Your task to perform on an android device: turn pop-ups off in chrome Image 0: 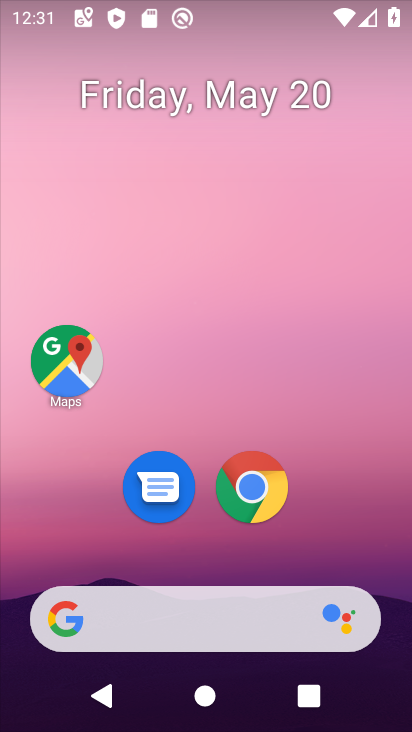
Step 0: click (250, 486)
Your task to perform on an android device: turn pop-ups off in chrome Image 1: 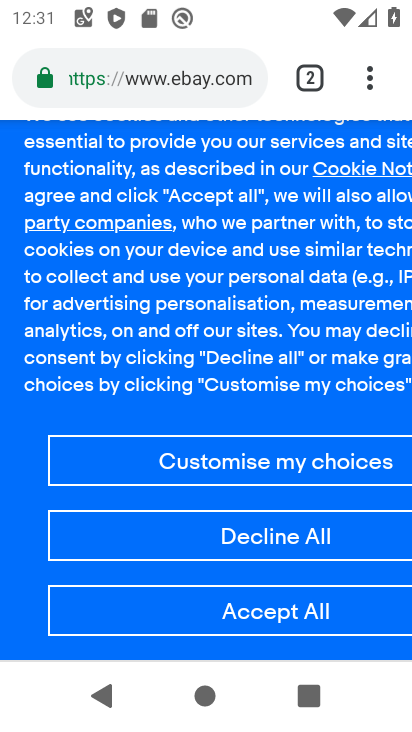
Step 1: drag from (364, 75) to (152, 557)
Your task to perform on an android device: turn pop-ups off in chrome Image 2: 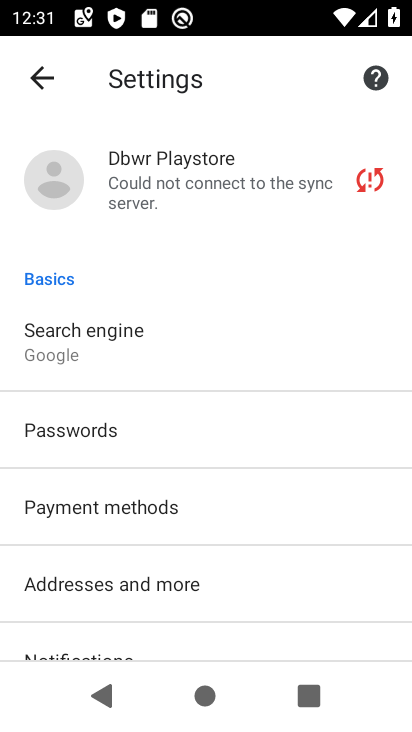
Step 2: drag from (167, 618) to (228, 337)
Your task to perform on an android device: turn pop-ups off in chrome Image 3: 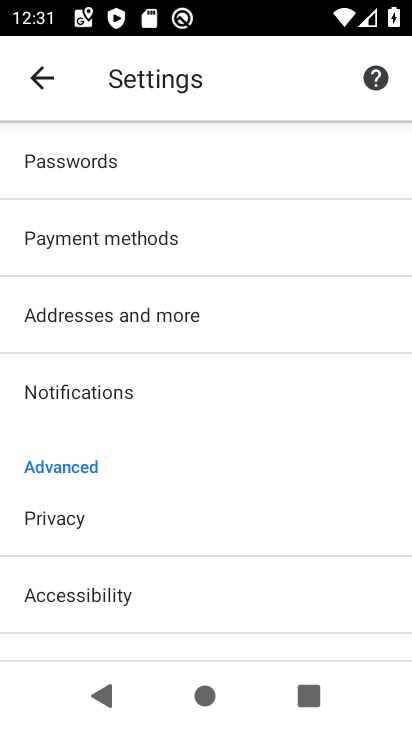
Step 3: drag from (163, 602) to (297, 111)
Your task to perform on an android device: turn pop-ups off in chrome Image 4: 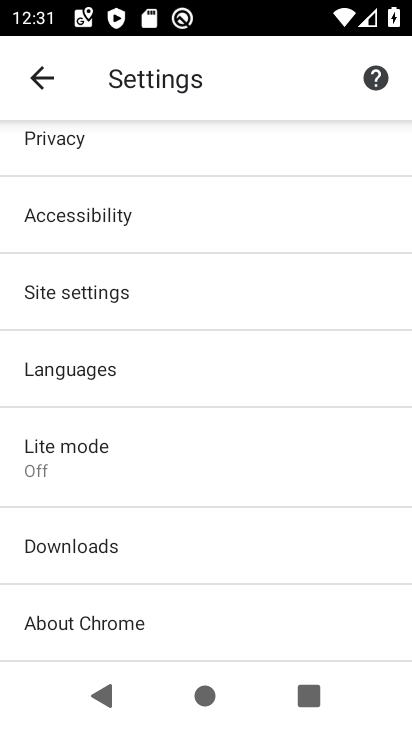
Step 4: click (125, 288)
Your task to perform on an android device: turn pop-ups off in chrome Image 5: 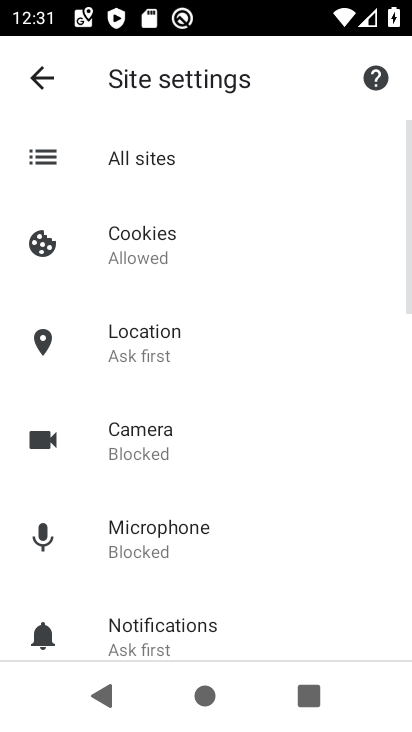
Step 5: drag from (187, 627) to (280, 193)
Your task to perform on an android device: turn pop-ups off in chrome Image 6: 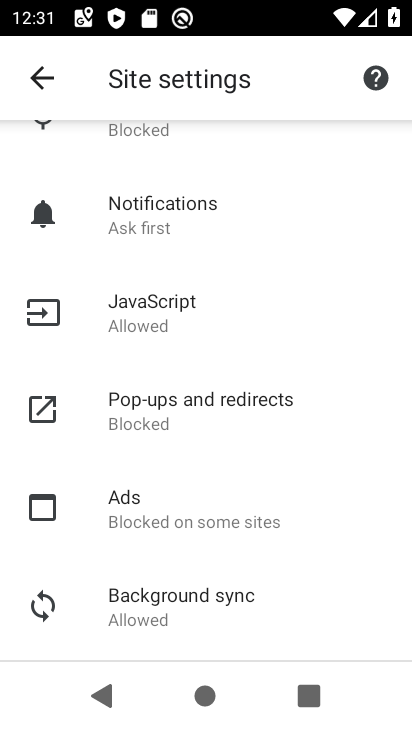
Step 6: click (155, 418)
Your task to perform on an android device: turn pop-ups off in chrome Image 7: 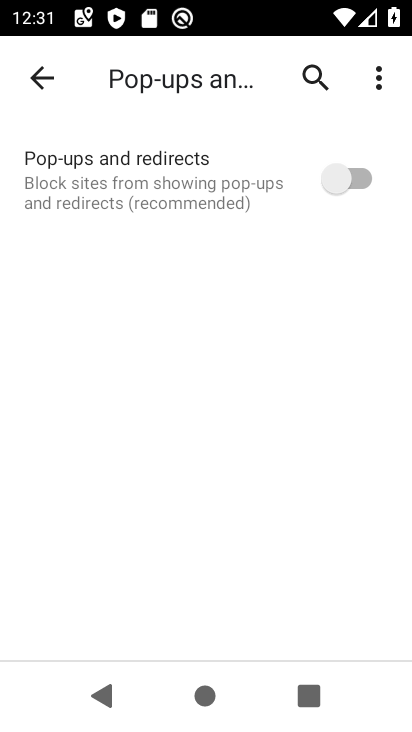
Step 7: task complete